Your task to perform on an android device: Go to Amazon Image 0: 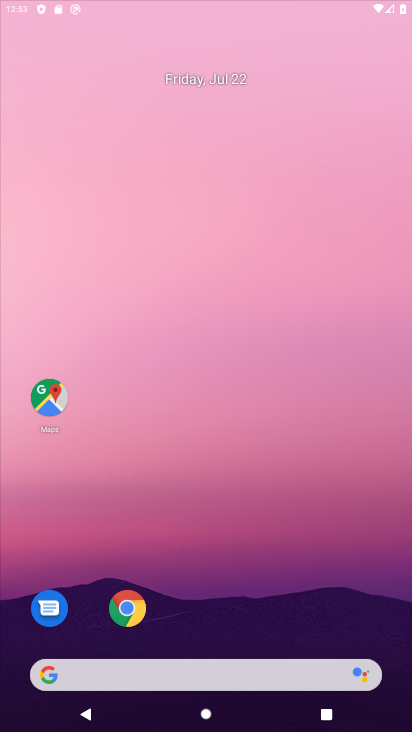
Step 0: drag from (400, 701) to (347, 47)
Your task to perform on an android device: Go to Amazon Image 1: 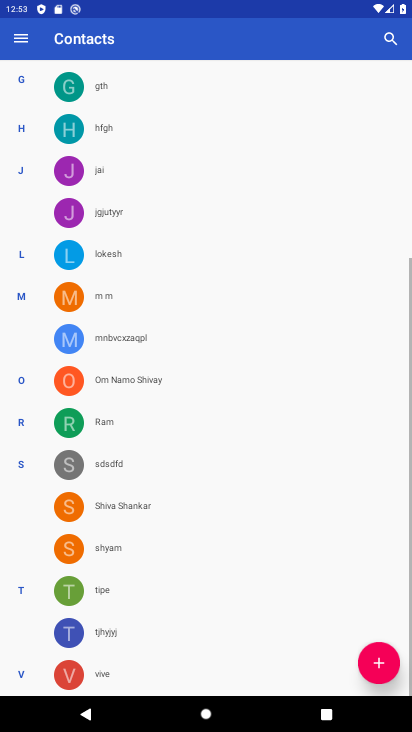
Step 1: press home button
Your task to perform on an android device: Go to Amazon Image 2: 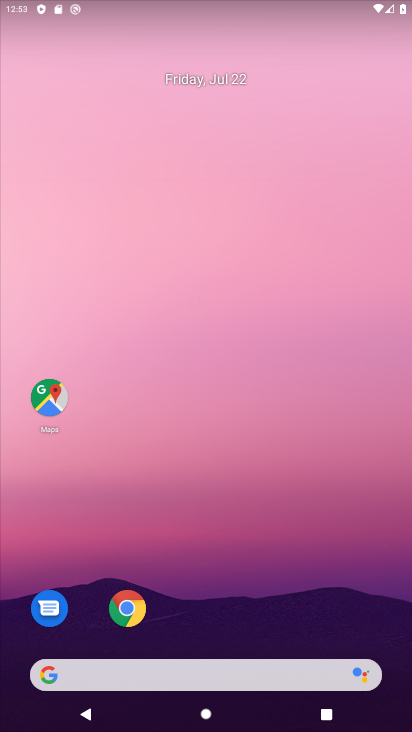
Step 2: click (123, 604)
Your task to perform on an android device: Go to Amazon Image 3: 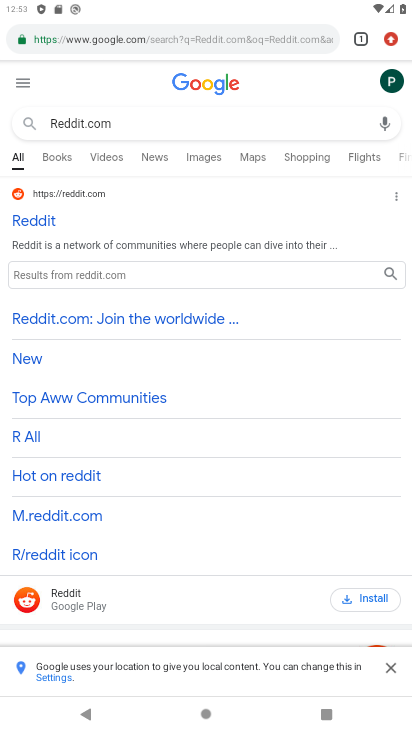
Step 3: click (290, 39)
Your task to perform on an android device: Go to Amazon Image 4: 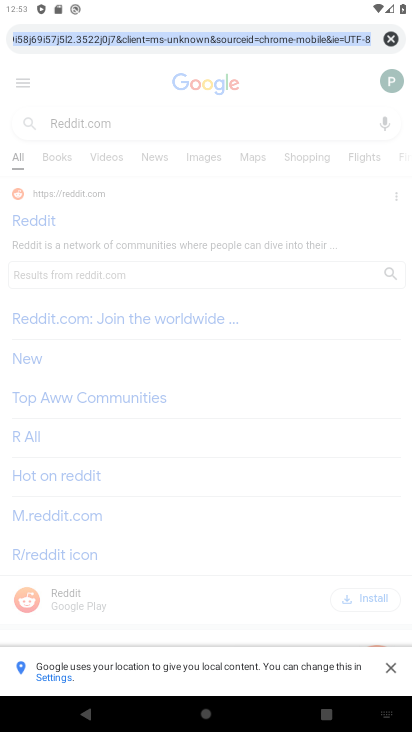
Step 4: click (393, 38)
Your task to perform on an android device: Go to Amazon Image 5: 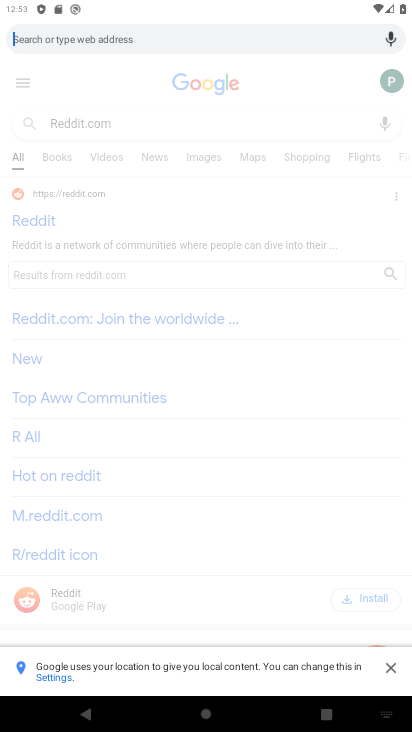
Step 5: type "Amazon"
Your task to perform on an android device: Go to Amazon Image 6: 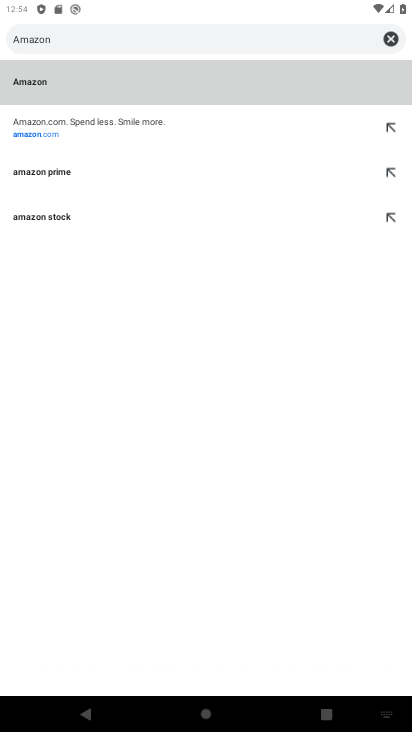
Step 6: click (28, 76)
Your task to perform on an android device: Go to Amazon Image 7: 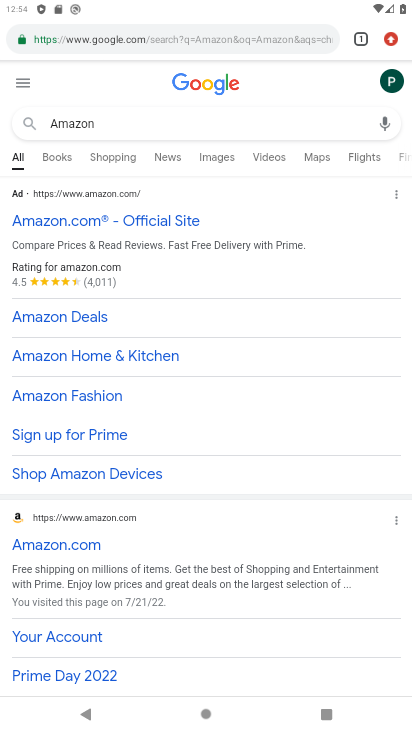
Step 7: task complete